Your task to perform on an android device: Open eBay Image 0: 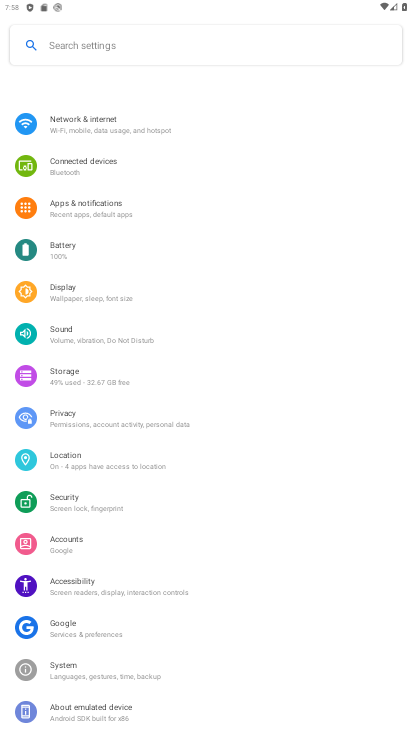
Step 0: drag from (49, 706) to (164, 7)
Your task to perform on an android device: Open eBay Image 1: 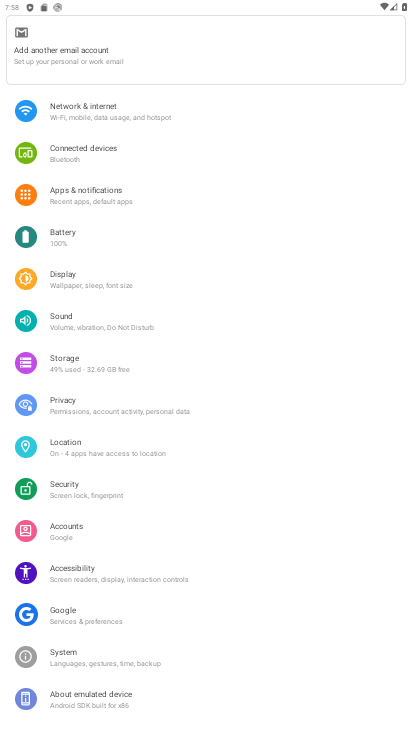
Step 1: press home button
Your task to perform on an android device: Open eBay Image 2: 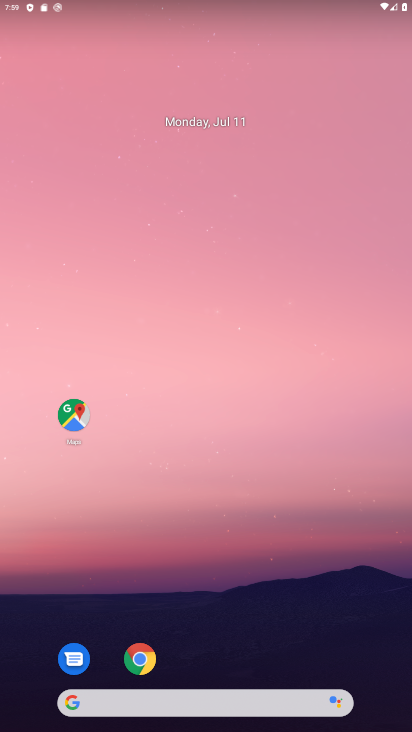
Step 2: click (132, 698)
Your task to perform on an android device: Open eBay Image 3: 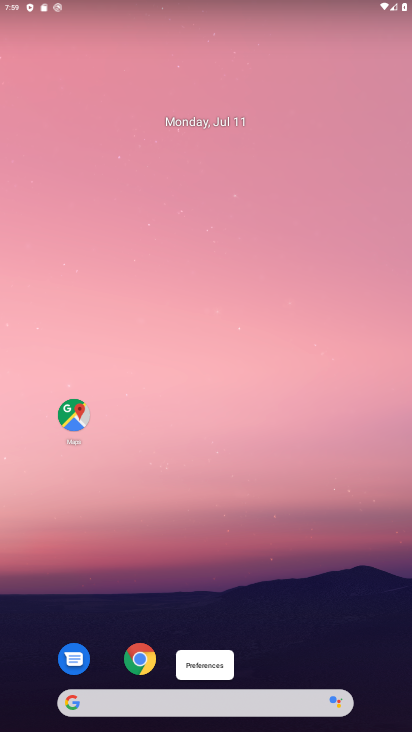
Step 3: click (102, 701)
Your task to perform on an android device: Open eBay Image 4: 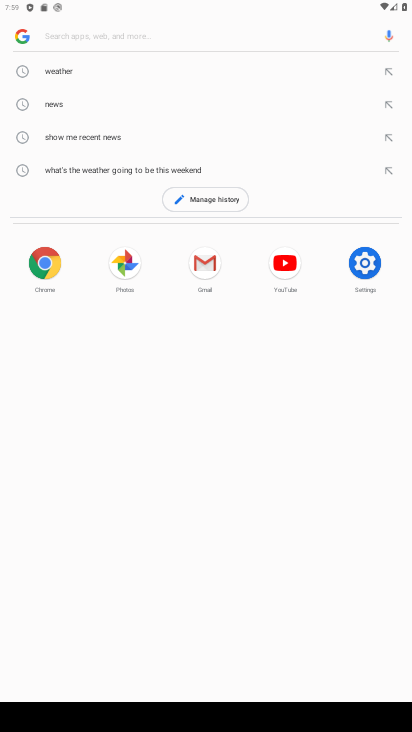
Step 4: type "eBay"
Your task to perform on an android device: Open eBay Image 5: 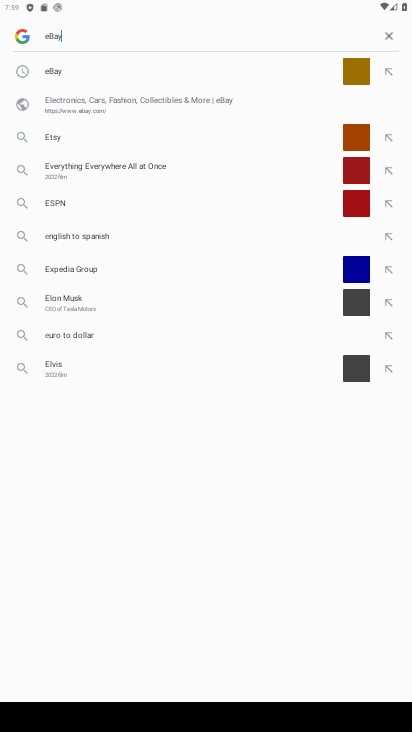
Step 5: type ""
Your task to perform on an android device: Open eBay Image 6: 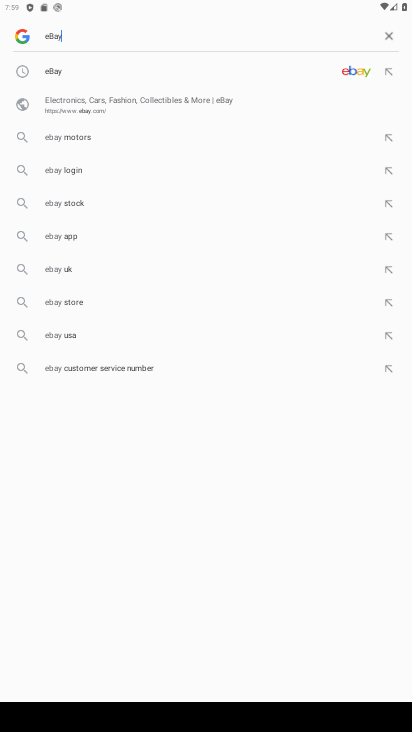
Step 6: click (49, 70)
Your task to perform on an android device: Open eBay Image 7: 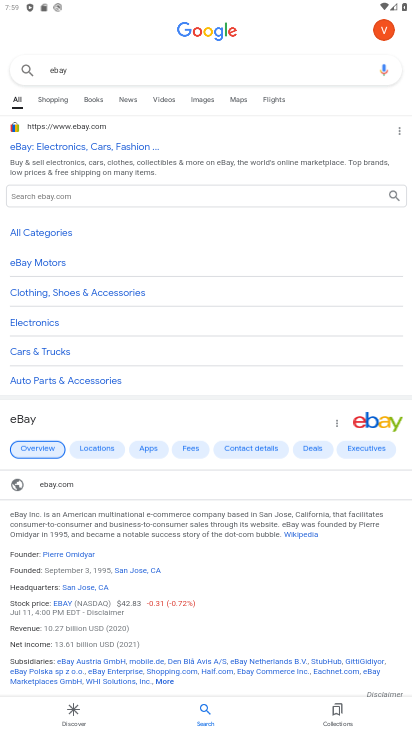
Step 7: task complete